Your task to perform on an android device: Open Google Chrome and click the shortcut for Amazon.com Image 0: 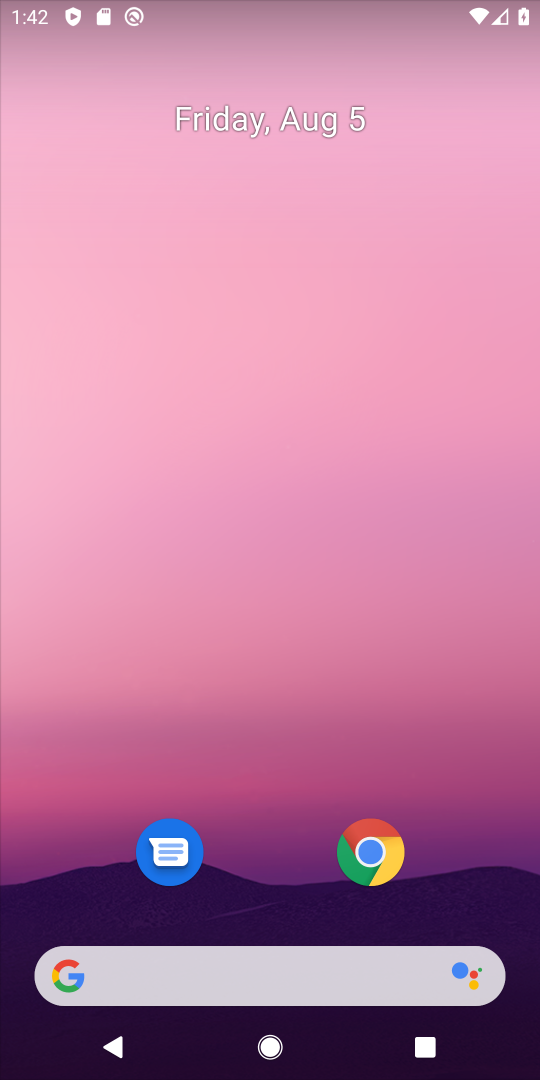
Step 0: press home button
Your task to perform on an android device: Open Google Chrome and click the shortcut for Amazon.com Image 1: 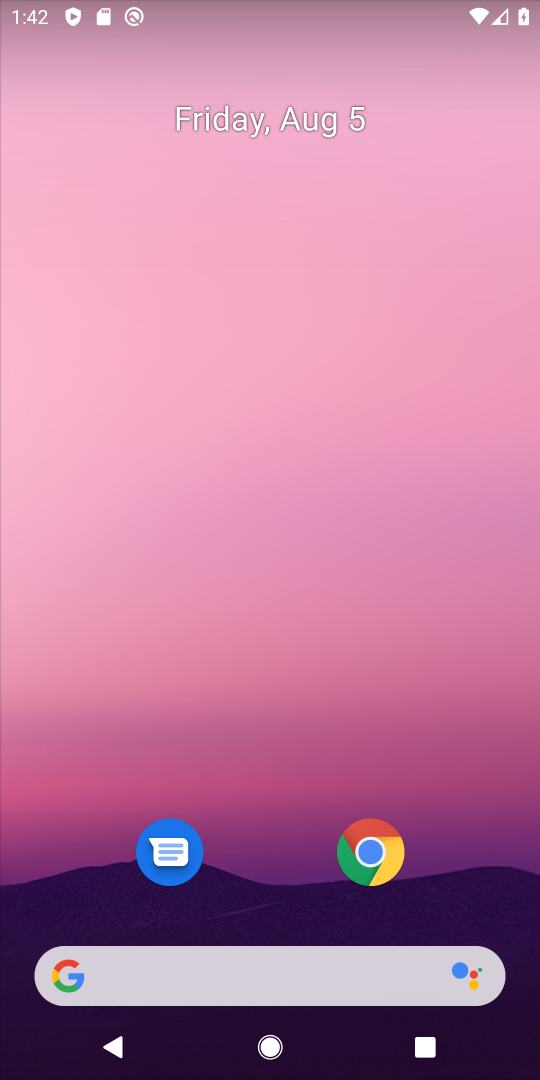
Step 1: click (373, 857)
Your task to perform on an android device: Open Google Chrome and click the shortcut for Amazon.com Image 2: 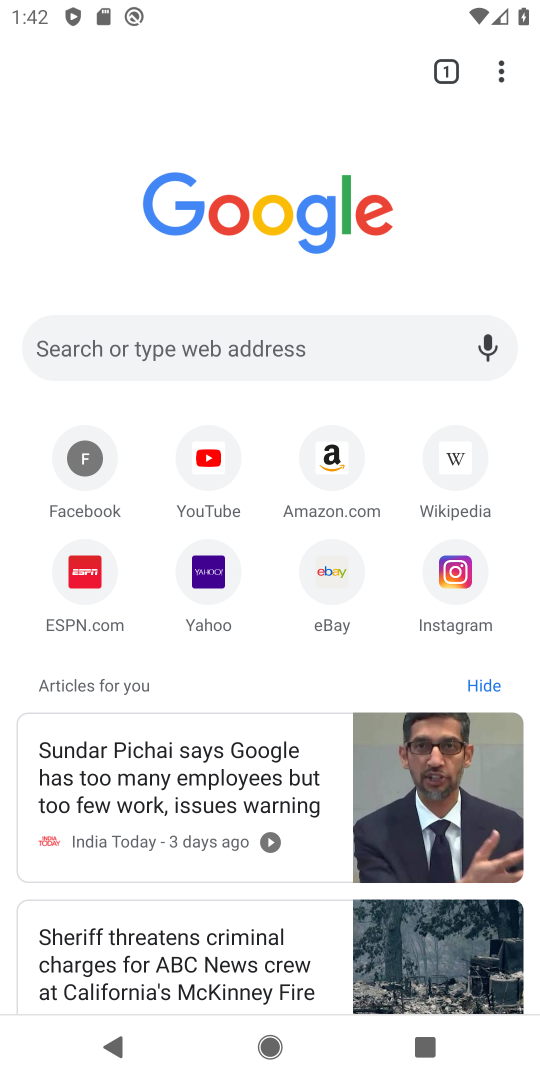
Step 2: click (330, 451)
Your task to perform on an android device: Open Google Chrome and click the shortcut for Amazon.com Image 3: 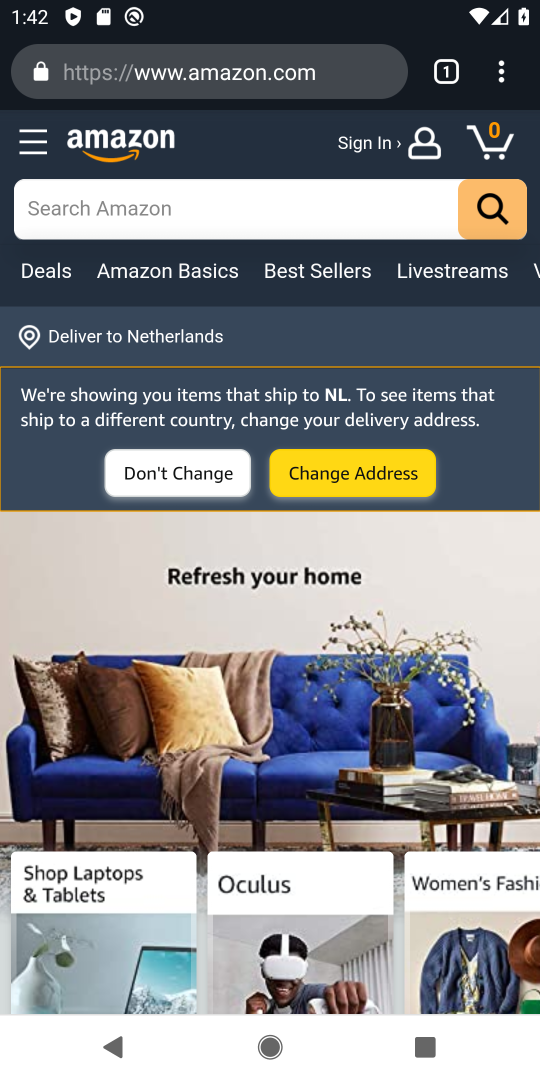
Step 3: task complete